Your task to perform on an android device: What's a good restaurant in Chicago? Image 0: 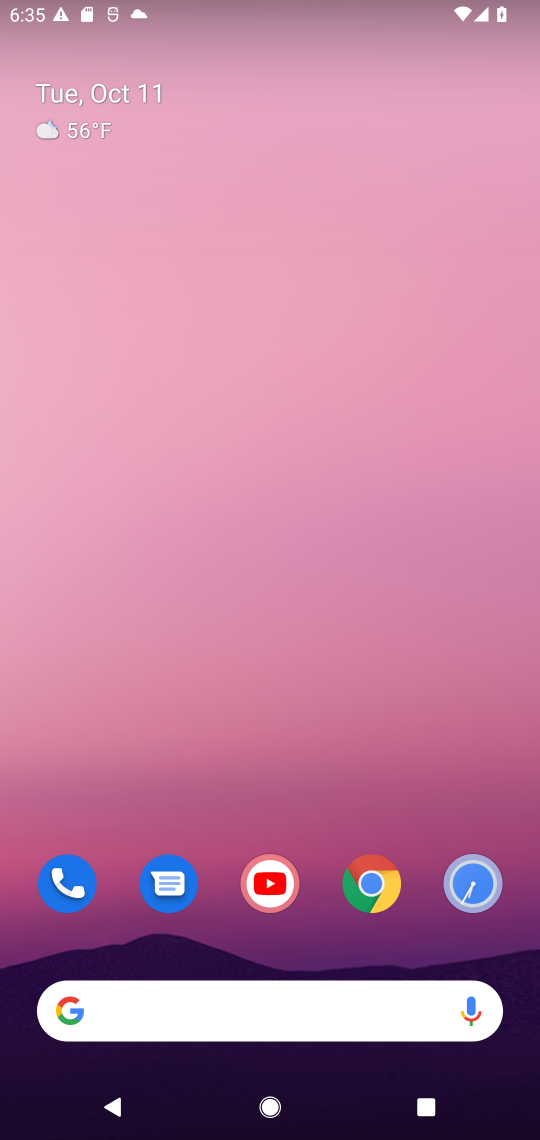
Step 0: press home button
Your task to perform on an android device: What's a good restaurant in Chicago? Image 1: 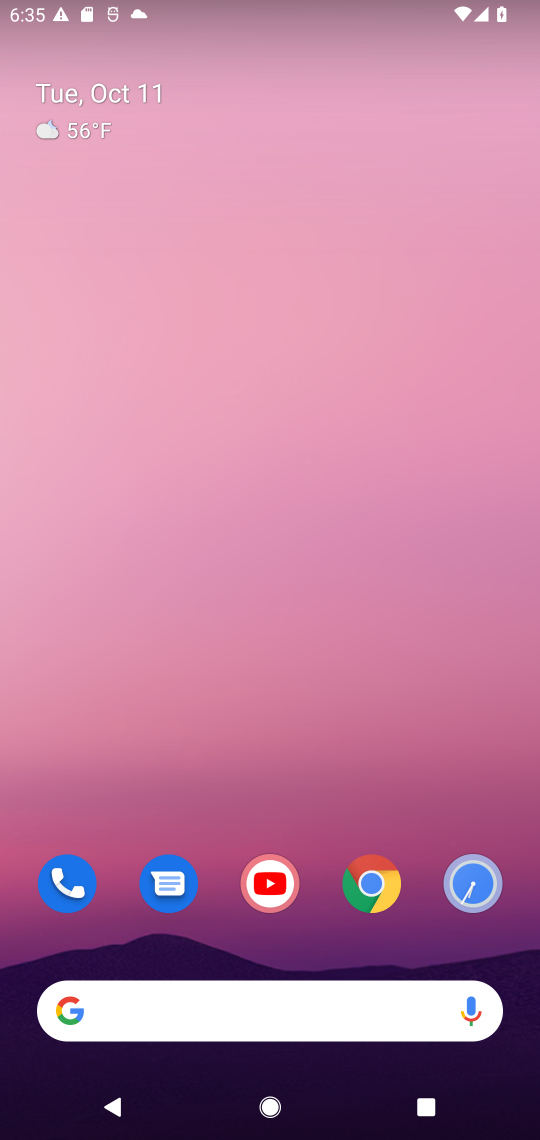
Step 1: drag from (352, 731) to (420, 93)
Your task to perform on an android device: What's a good restaurant in Chicago? Image 2: 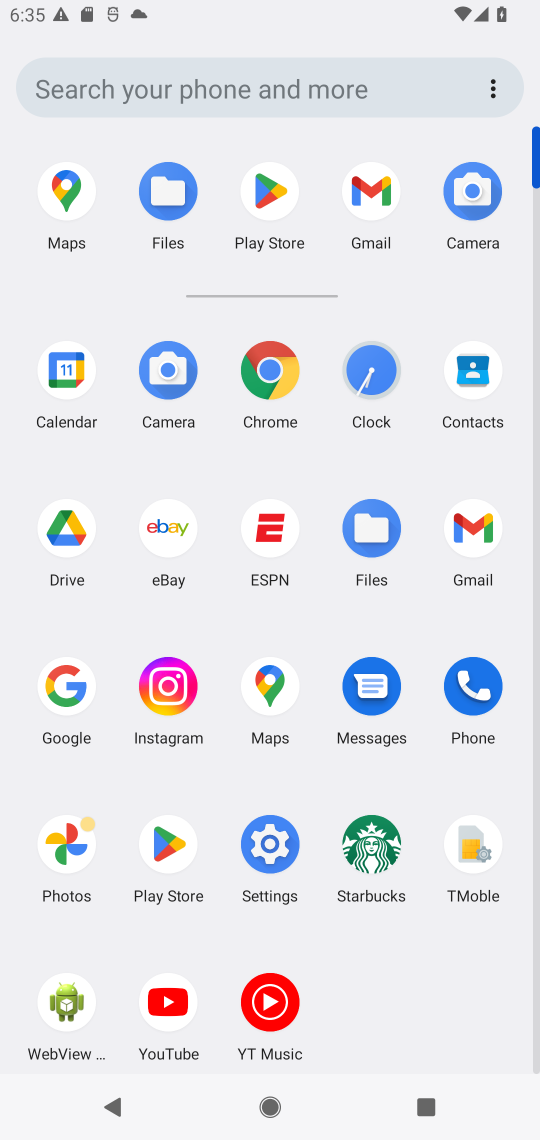
Step 2: click (277, 373)
Your task to perform on an android device: What's a good restaurant in Chicago? Image 3: 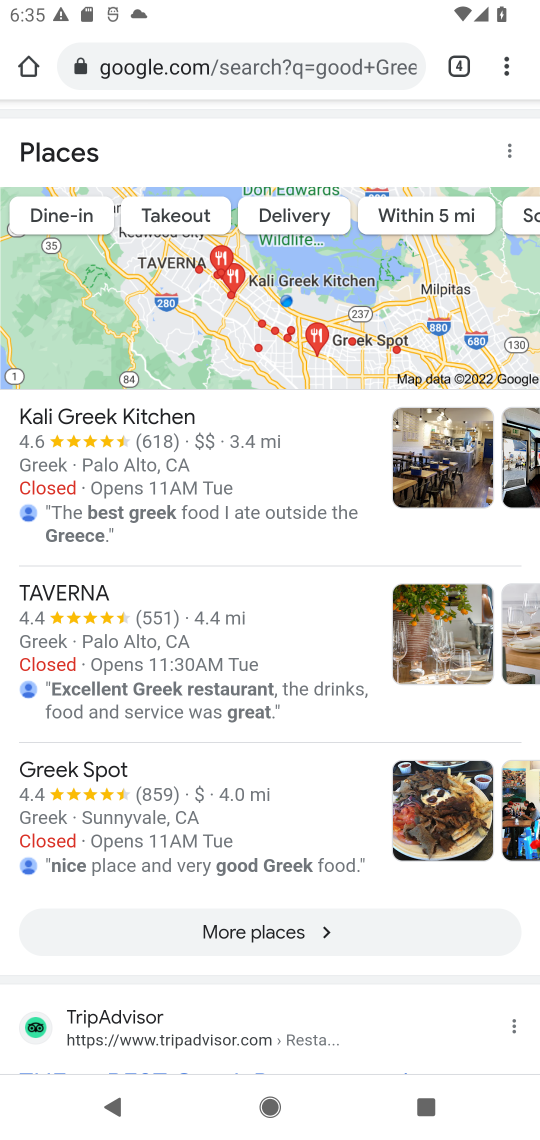
Step 3: click (232, 78)
Your task to perform on an android device: What's a good restaurant in Chicago? Image 4: 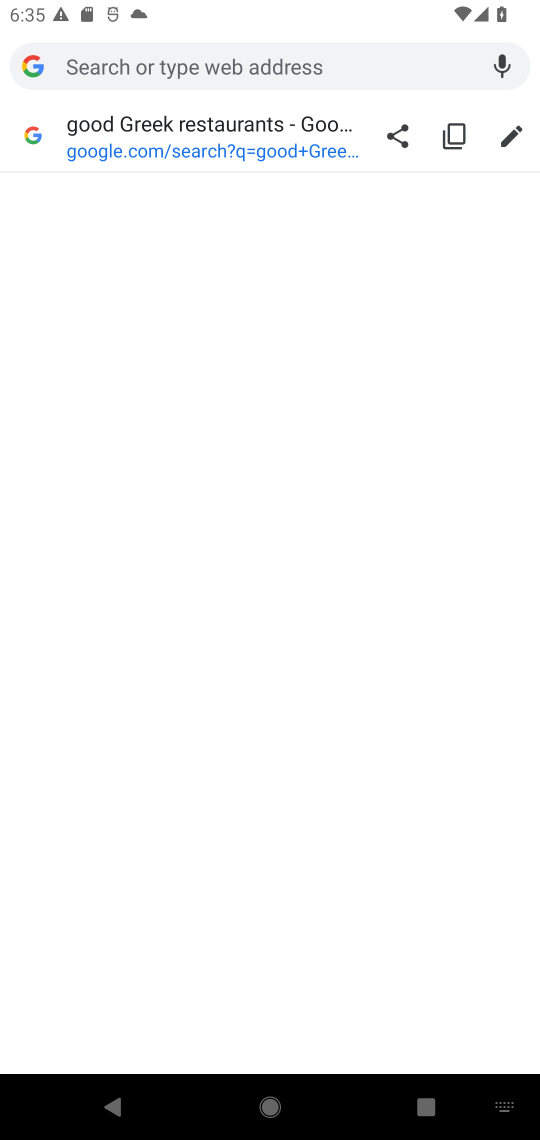
Step 4: type "What's a good restaurant in Chicago?\"
Your task to perform on an android device: What's a good restaurant in Chicago? Image 5: 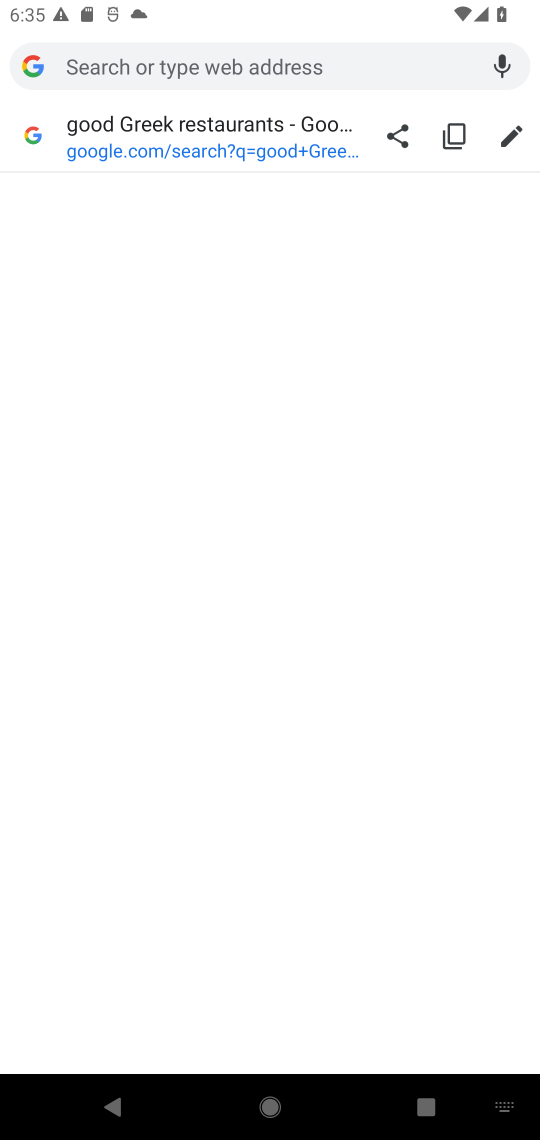
Step 5: press enter
Your task to perform on an android device: What's a good restaurant in Chicago? Image 6: 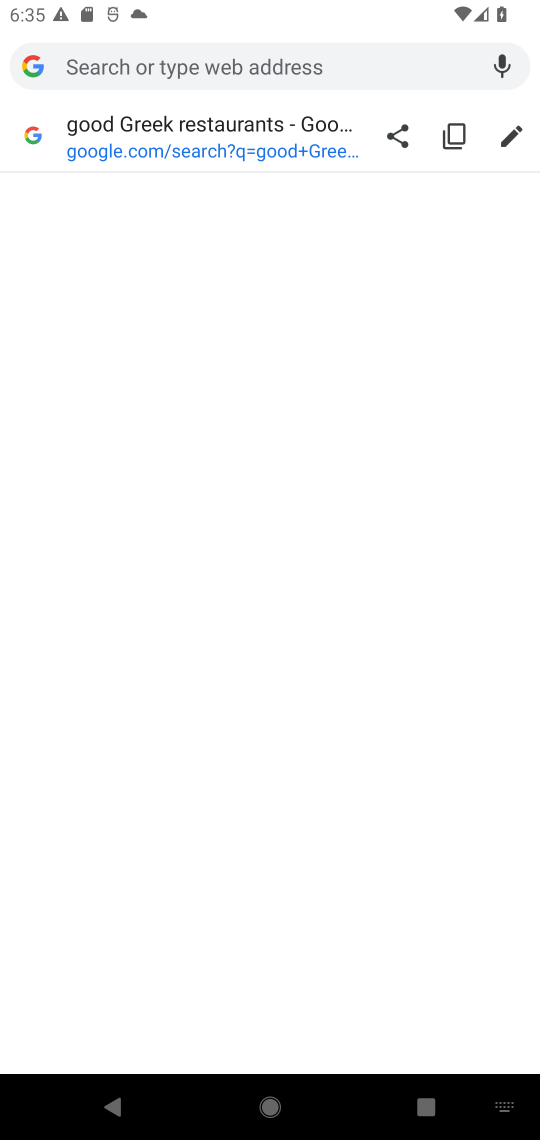
Step 6: click (198, 63)
Your task to perform on an android device: What's a good restaurant in Chicago? Image 7: 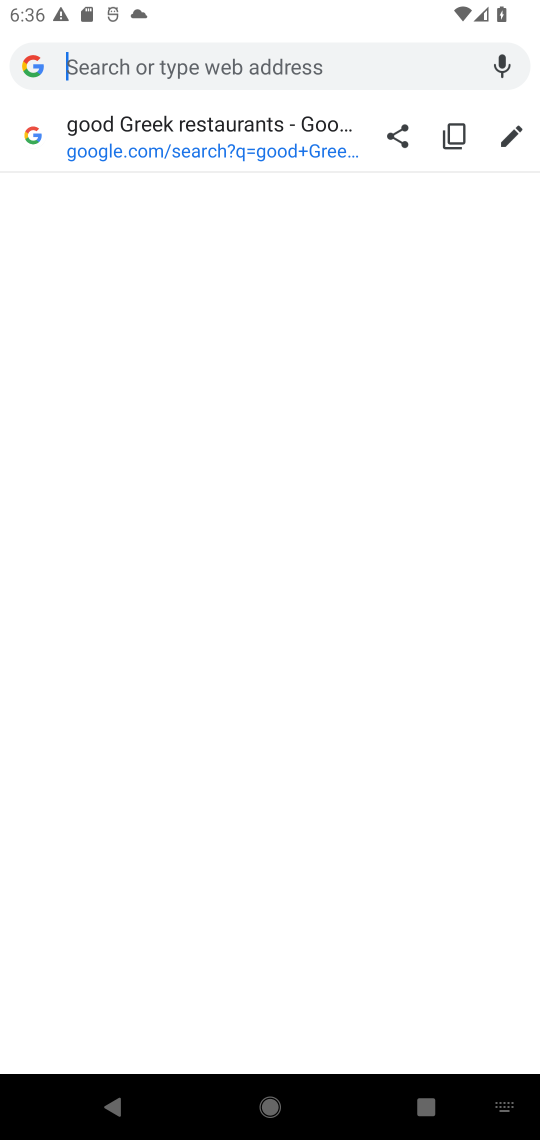
Step 7: type "What's a good restaurant in Chicago?"
Your task to perform on an android device: What's a good restaurant in Chicago? Image 8: 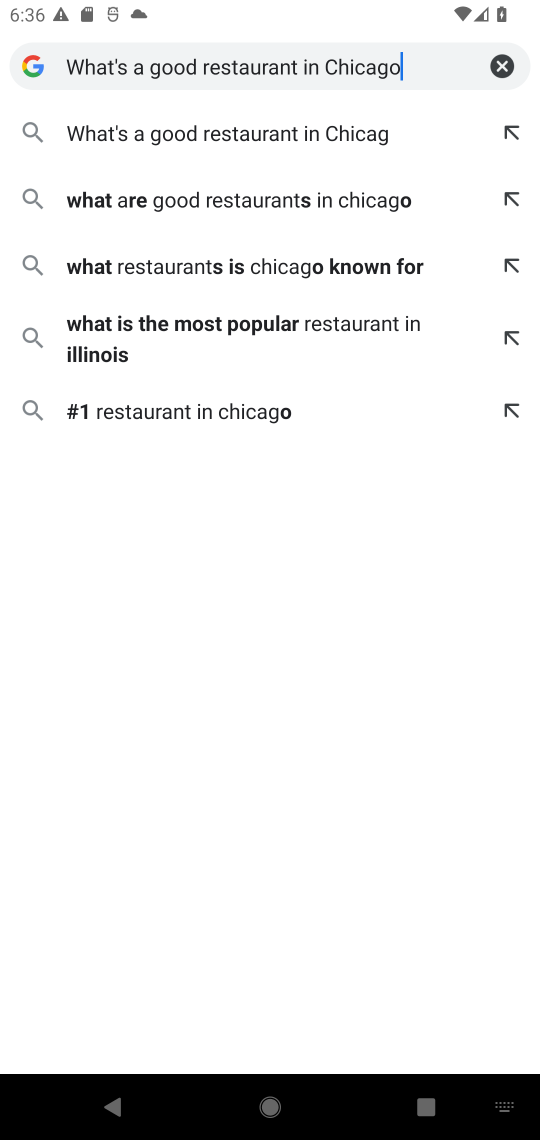
Step 8: press enter
Your task to perform on an android device: What's a good restaurant in Chicago? Image 9: 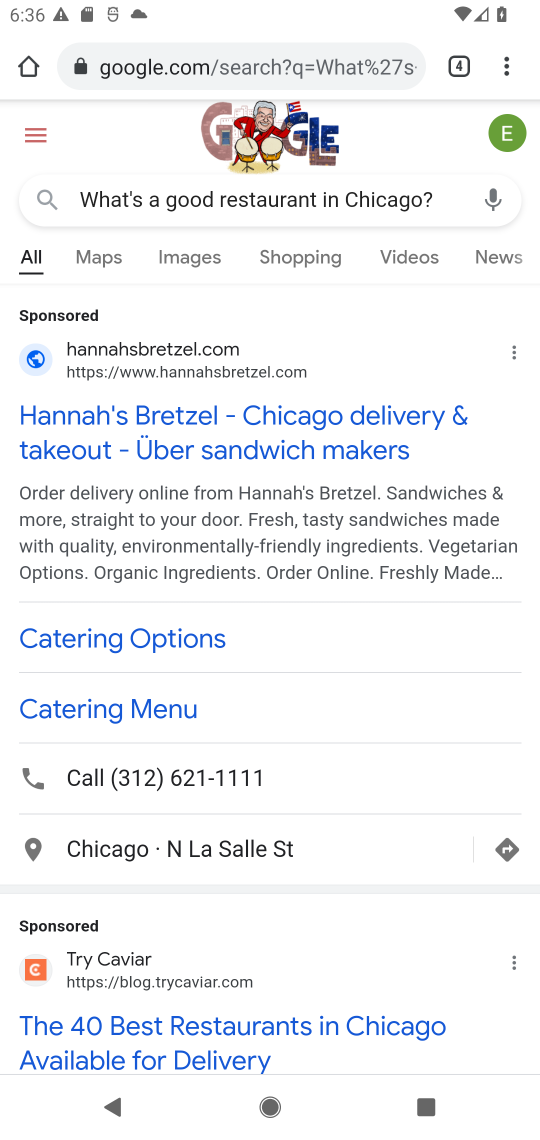
Step 9: drag from (381, 561) to (406, 135)
Your task to perform on an android device: What's a good restaurant in Chicago? Image 10: 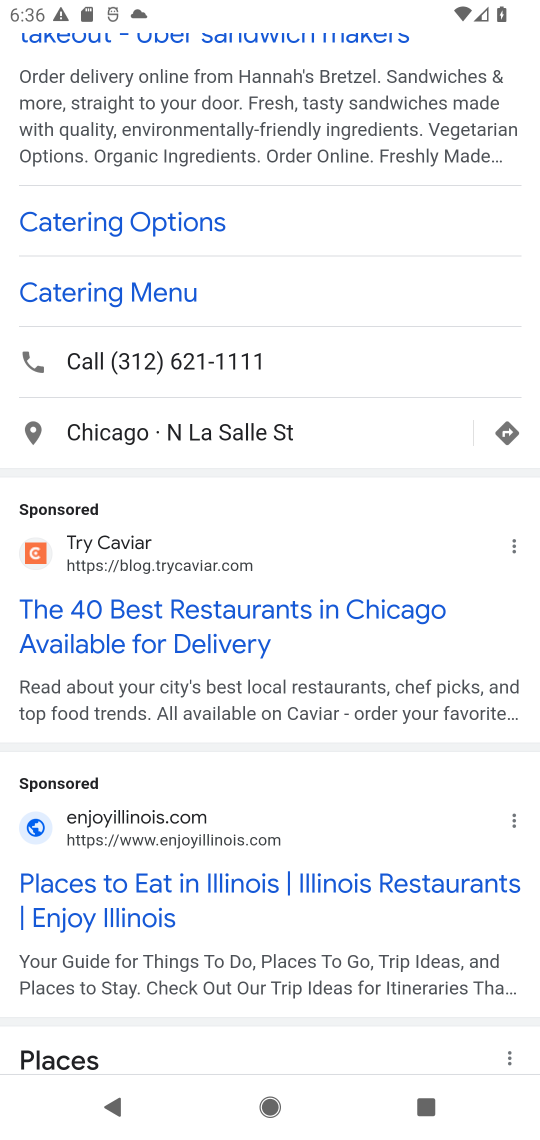
Step 10: drag from (265, 682) to (388, 1126)
Your task to perform on an android device: What's a good restaurant in Chicago? Image 11: 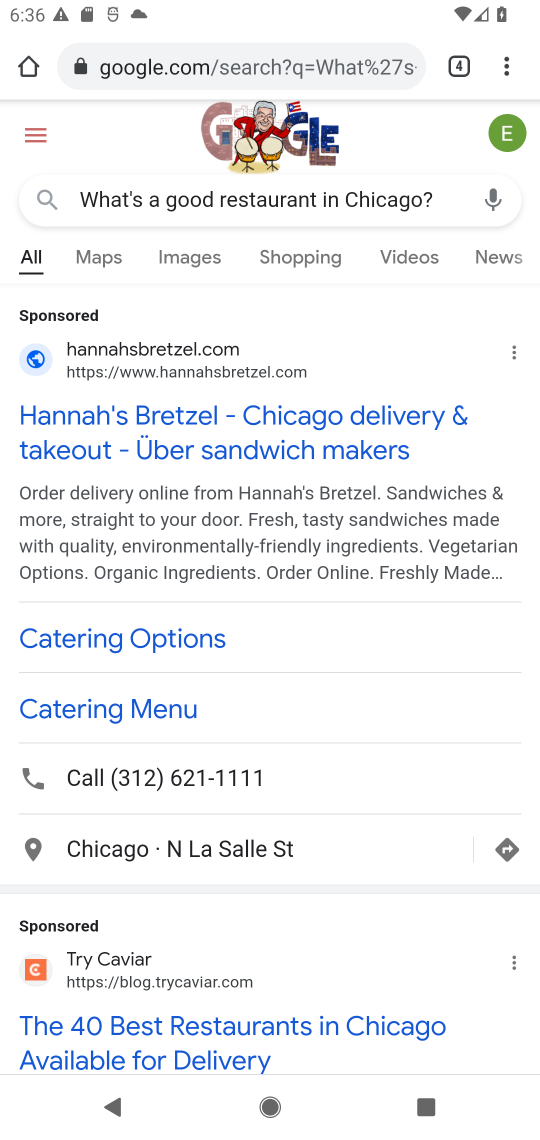
Step 11: drag from (342, 517) to (363, 158)
Your task to perform on an android device: What's a good restaurant in Chicago? Image 12: 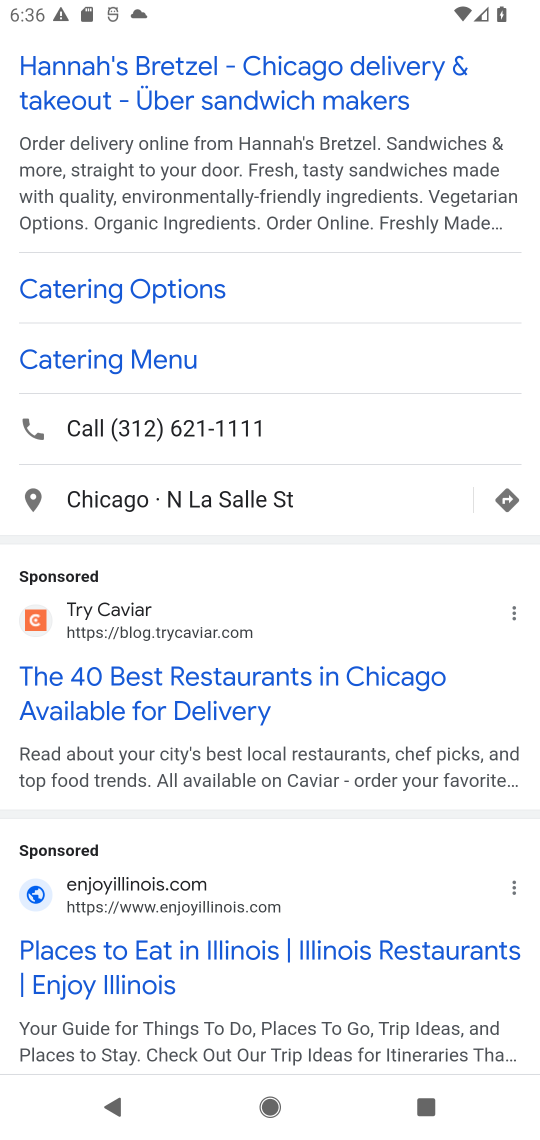
Step 12: click (217, 690)
Your task to perform on an android device: What's a good restaurant in Chicago? Image 13: 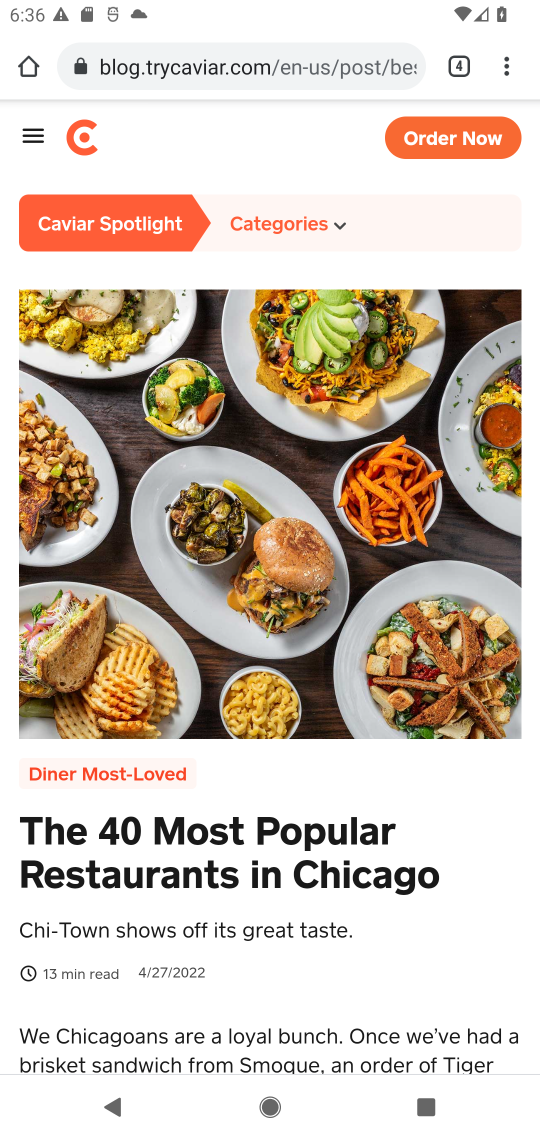
Step 13: task complete